Your task to perform on an android device: What's the weather going to be this weekend? Image 0: 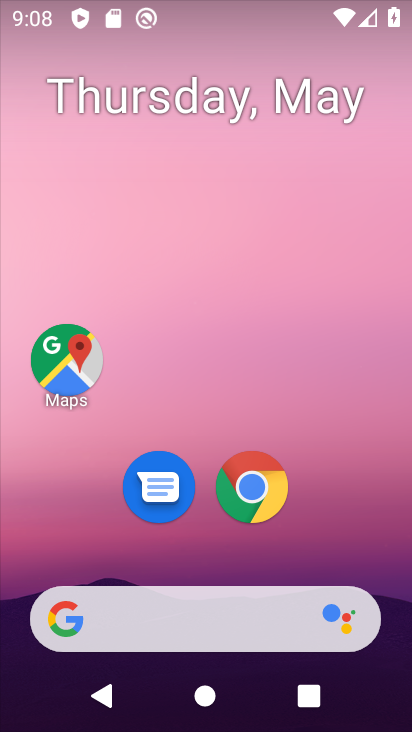
Step 0: drag from (194, 397) to (217, 115)
Your task to perform on an android device: What's the weather going to be this weekend? Image 1: 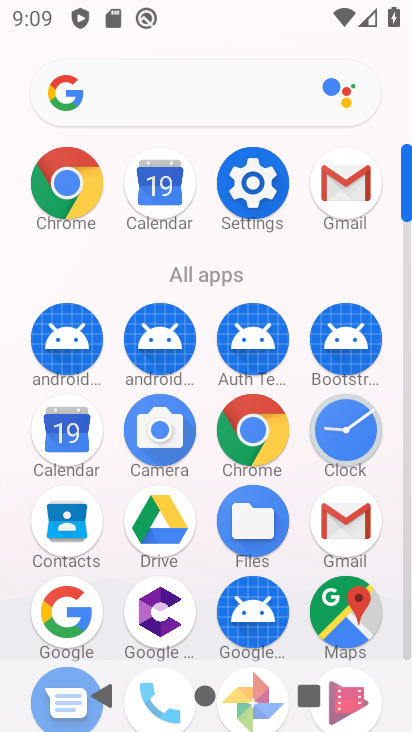
Step 1: click (157, 92)
Your task to perform on an android device: What's the weather going to be this weekend? Image 2: 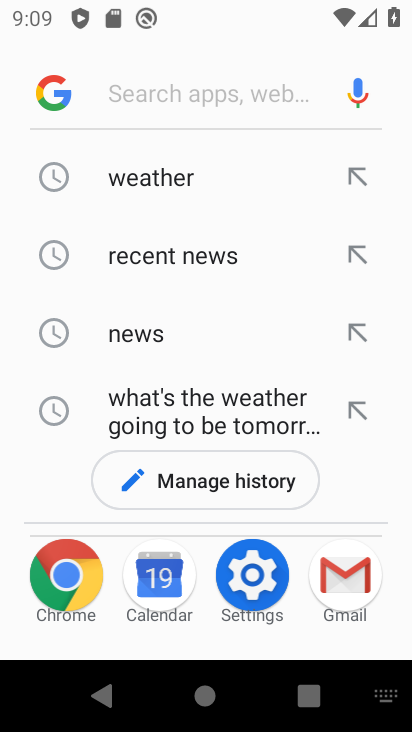
Step 2: click (148, 198)
Your task to perform on an android device: What's the weather going to be this weekend? Image 3: 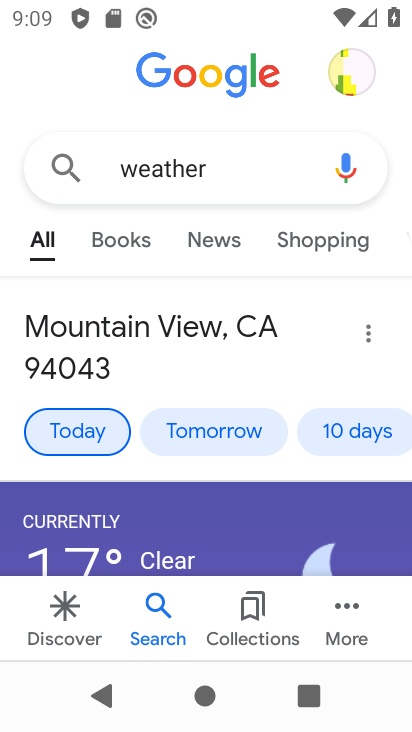
Step 3: click (327, 432)
Your task to perform on an android device: What's the weather going to be this weekend? Image 4: 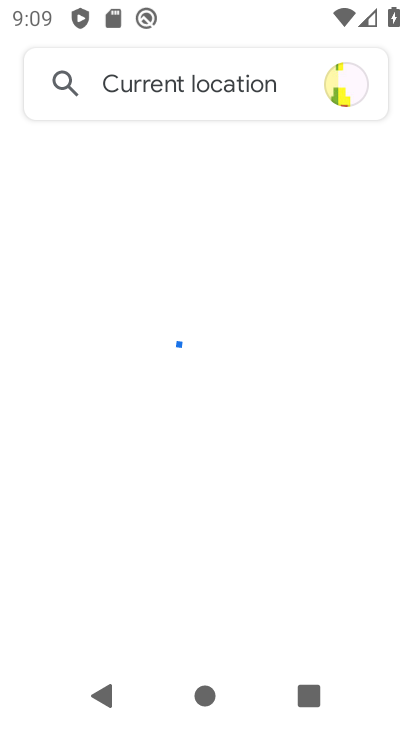
Step 4: press home button
Your task to perform on an android device: What's the weather going to be this weekend? Image 5: 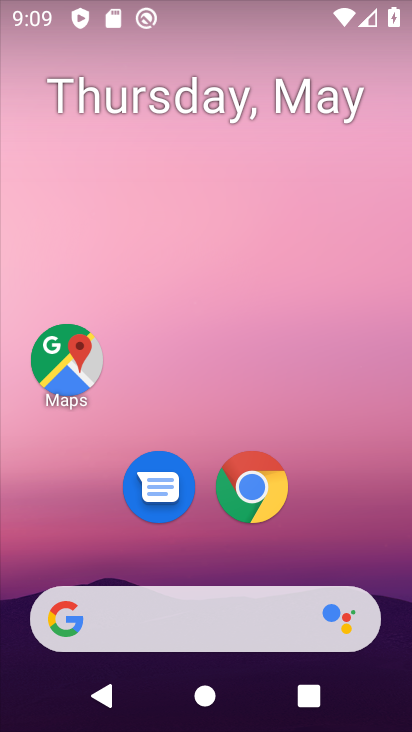
Step 5: click (185, 626)
Your task to perform on an android device: What's the weather going to be this weekend? Image 6: 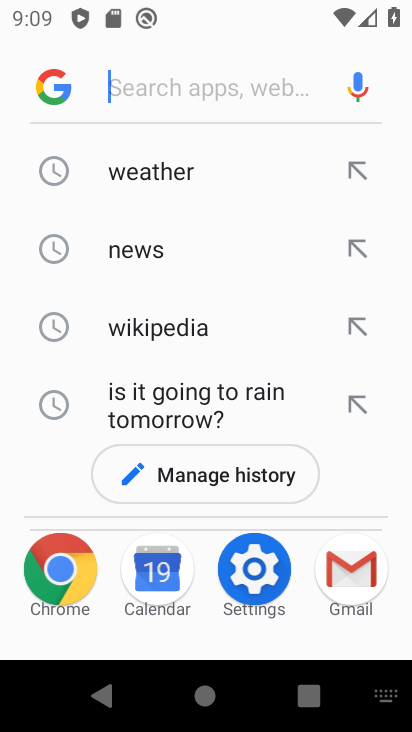
Step 6: click (130, 168)
Your task to perform on an android device: What's the weather going to be this weekend? Image 7: 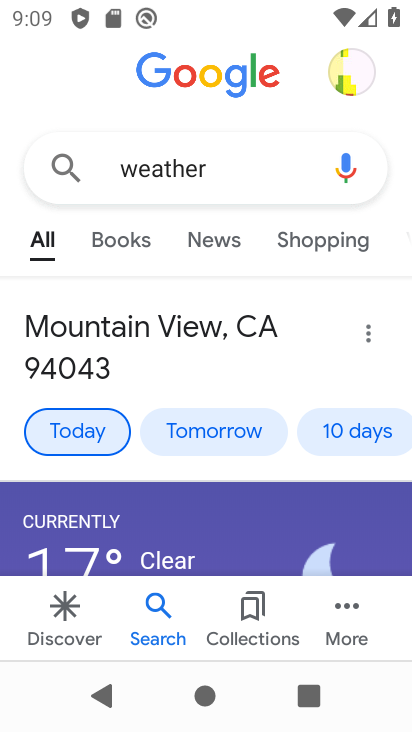
Step 7: click (345, 432)
Your task to perform on an android device: What's the weather going to be this weekend? Image 8: 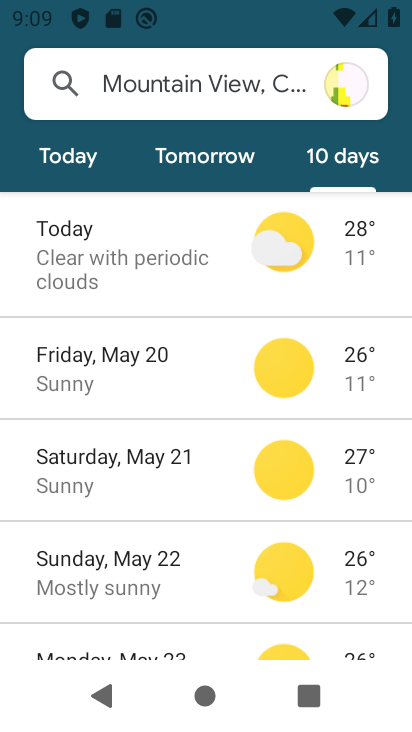
Step 8: task complete